Your task to perform on an android device: show emergency info Image 0: 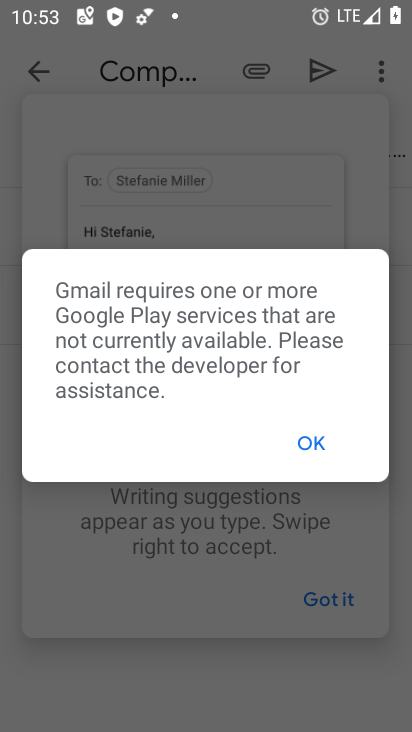
Step 0: press home button
Your task to perform on an android device: show emergency info Image 1: 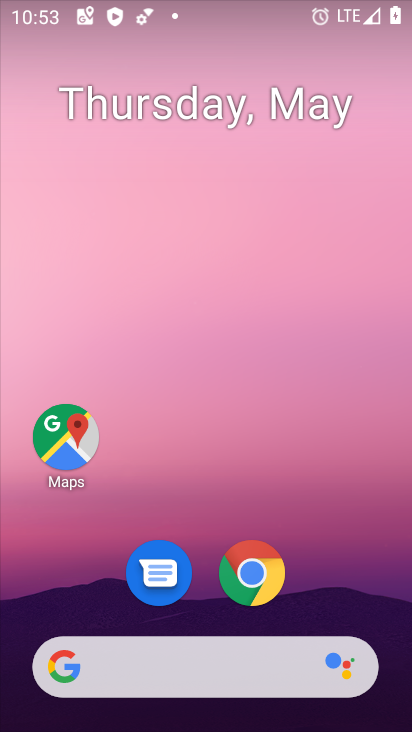
Step 1: drag from (191, 611) to (225, 243)
Your task to perform on an android device: show emergency info Image 2: 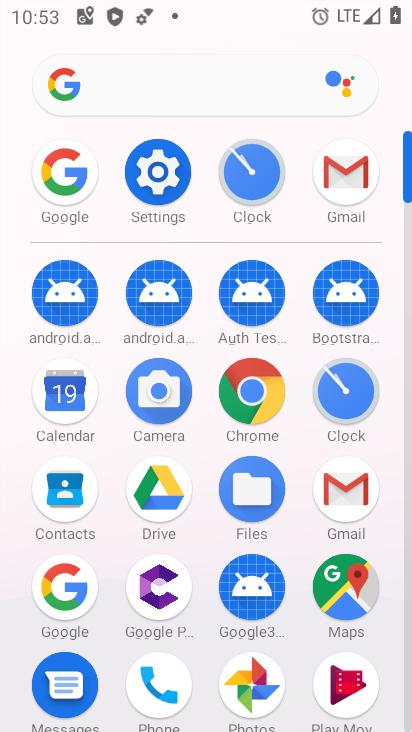
Step 2: click (156, 176)
Your task to perform on an android device: show emergency info Image 3: 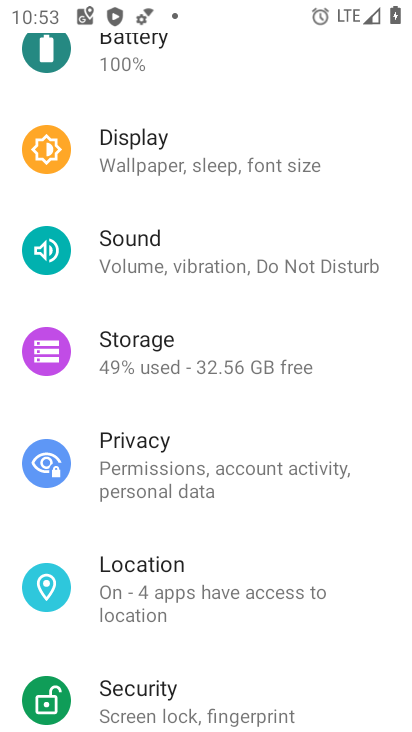
Step 3: drag from (198, 695) to (236, 386)
Your task to perform on an android device: show emergency info Image 4: 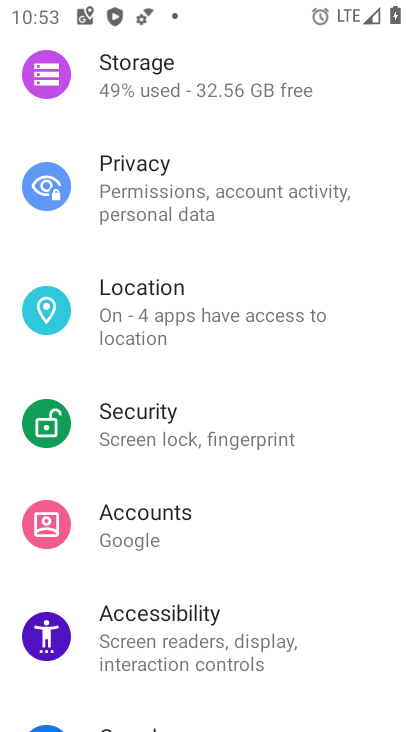
Step 4: drag from (224, 631) to (239, 366)
Your task to perform on an android device: show emergency info Image 5: 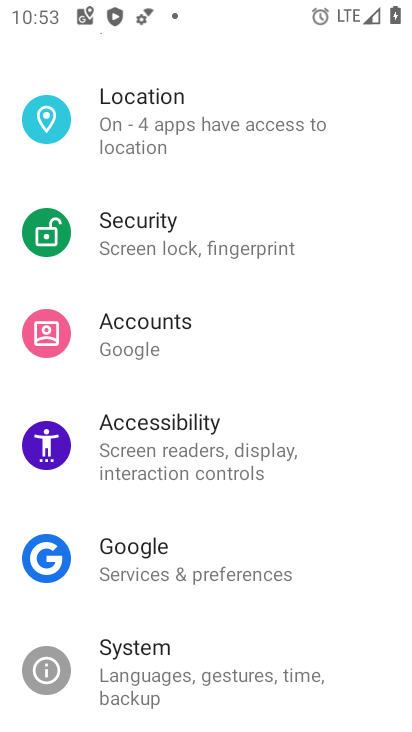
Step 5: drag from (154, 634) to (221, 337)
Your task to perform on an android device: show emergency info Image 6: 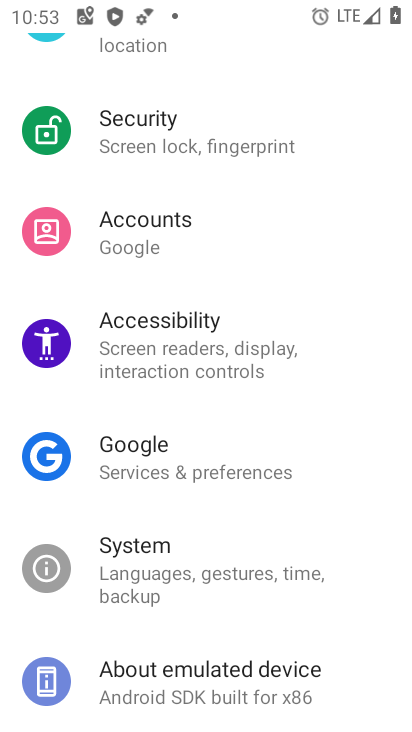
Step 6: drag from (192, 628) to (232, 397)
Your task to perform on an android device: show emergency info Image 7: 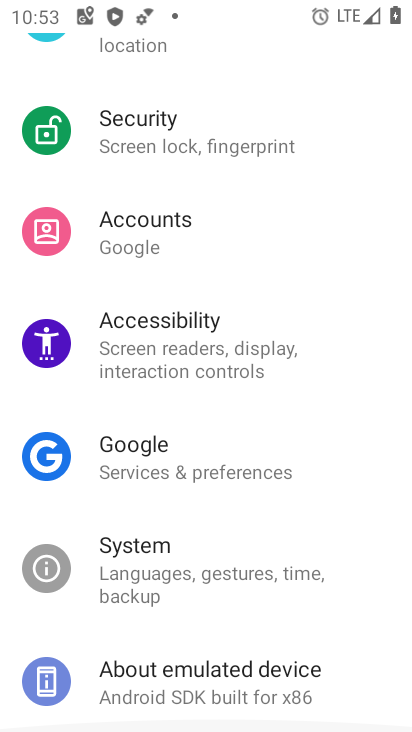
Step 7: drag from (200, 245) to (222, 543)
Your task to perform on an android device: show emergency info Image 8: 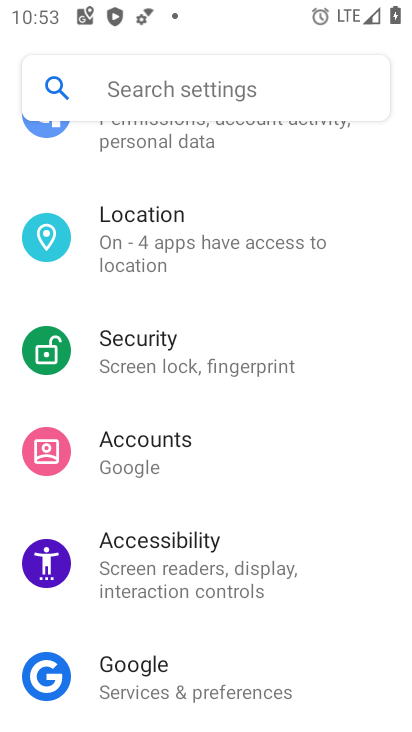
Step 8: drag from (173, 640) to (216, 342)
Your task to perform on an android device: show emergency info Image 9: 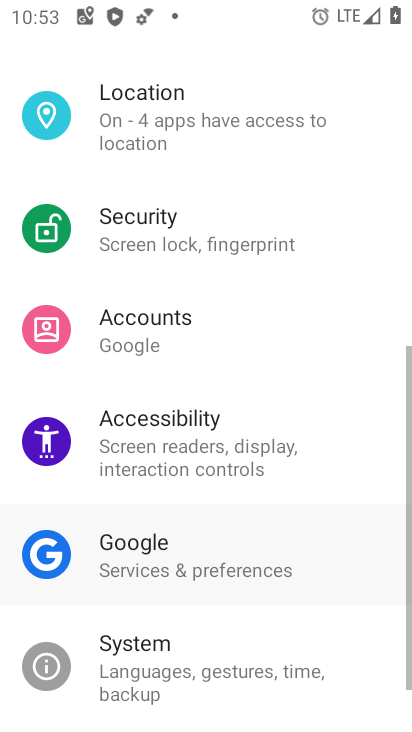
Step 9: drag from (208, 546) to (241, 310)
Your task to perform on an android device: show emergency info Image 10: 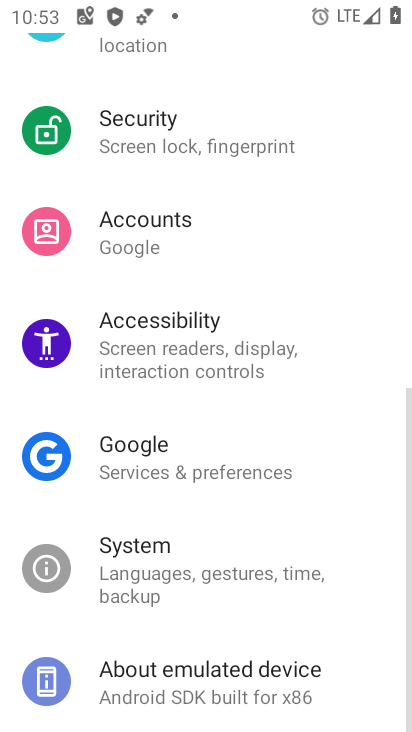
Step 10: drag from (236, 555) to (241, 298)
Your task to perform on an android device: show emergency info Image 11: 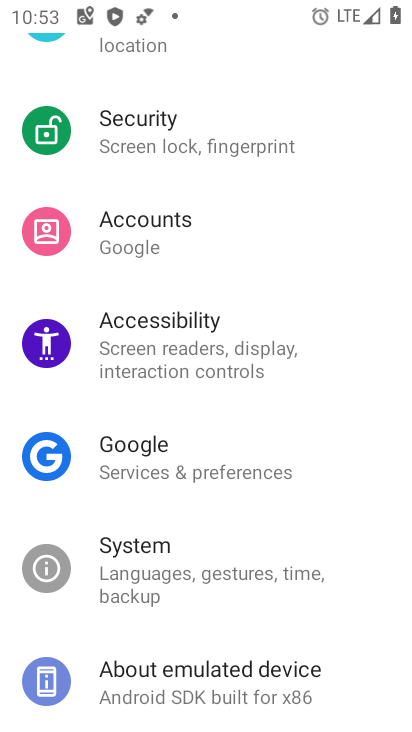
Step 11: drag from (207, 617) to (232, 370)
Your task to perform on an android device: show emergency info Image 12: 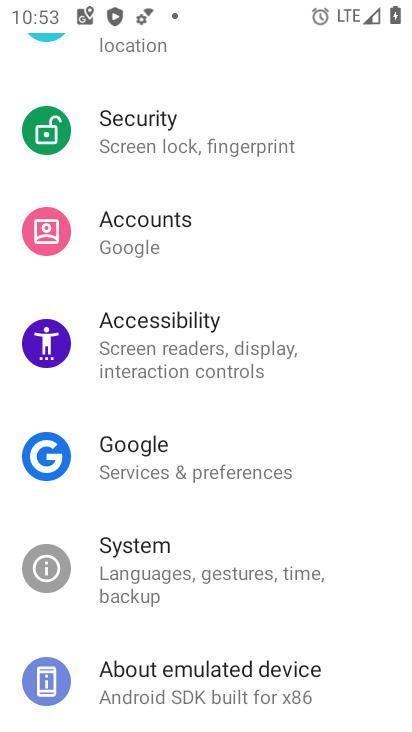
Step 12: click (167, 655)
Your task to perform on an android device: show emergency info Image 13: 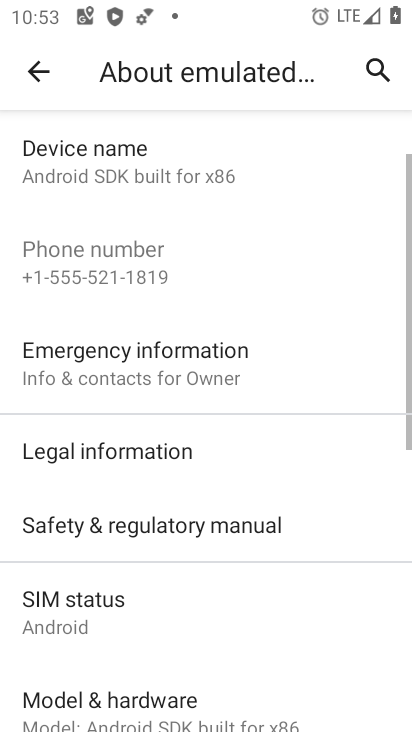
Step 13: click (151, 356)
Your task to perform on an android device: show emergency info Image 14: 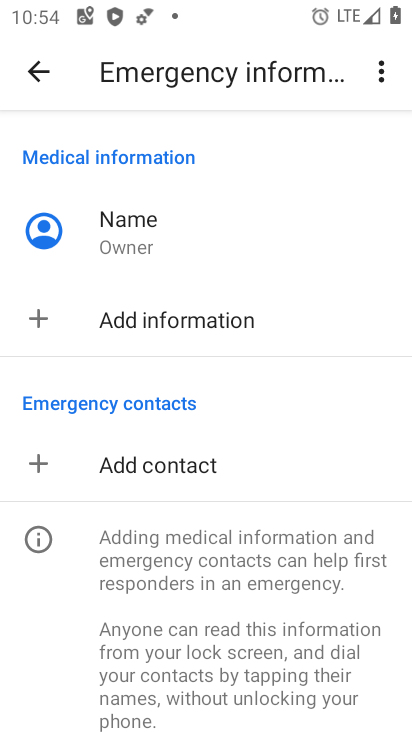
Step 14: task complete